Your task to perform on an android device: turn on translation in the chrome app Image 0: 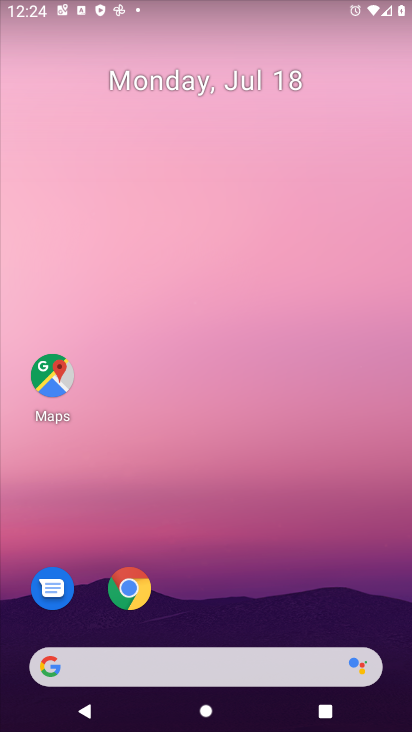
Step 0: drag from (191, 729) to (170, 226)
Your task to perform on an android device: turn on translation in the chrome app Image 1: 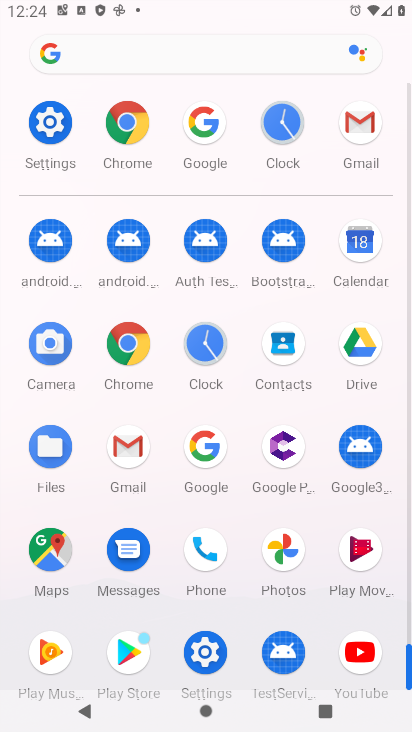
Step 1: click (122, 147)
Your task to perform on an android device: turn on translation in the chrome app Image 2: 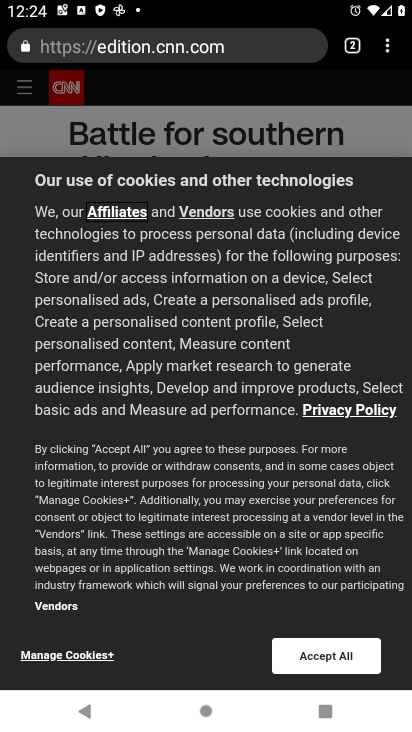
Step 2: click (390, 59)
Your task to perform on an android device: turn on translation in the chrome app Image 3: 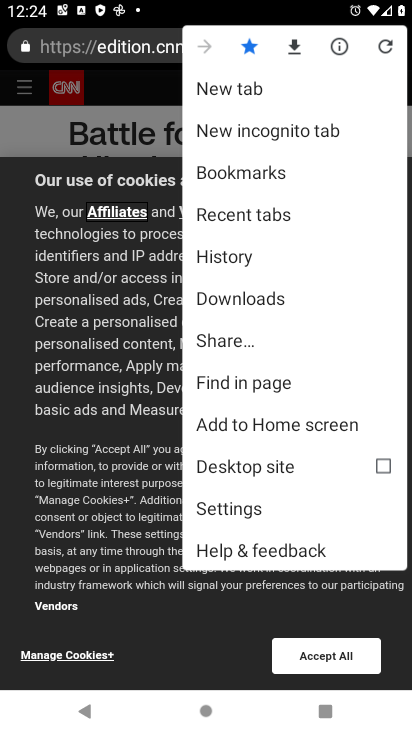
Step 3: task complete